Your task to perform on an android device: Open wifi settings Image 0: 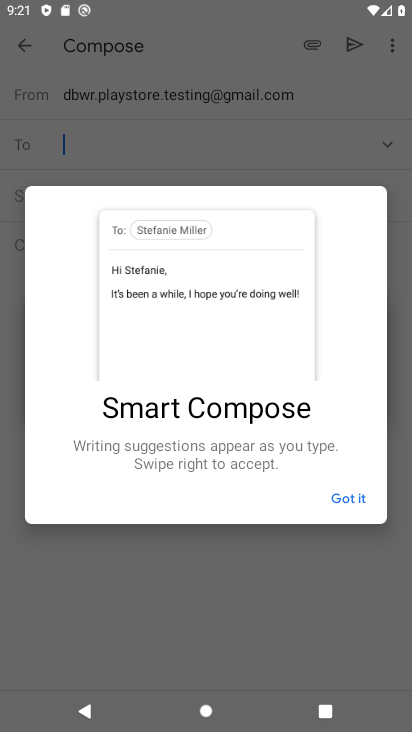
Step 0: drag from (181, 12) to (208, 469)
Your task to perform on an android device: Open wifi settings Image 1: 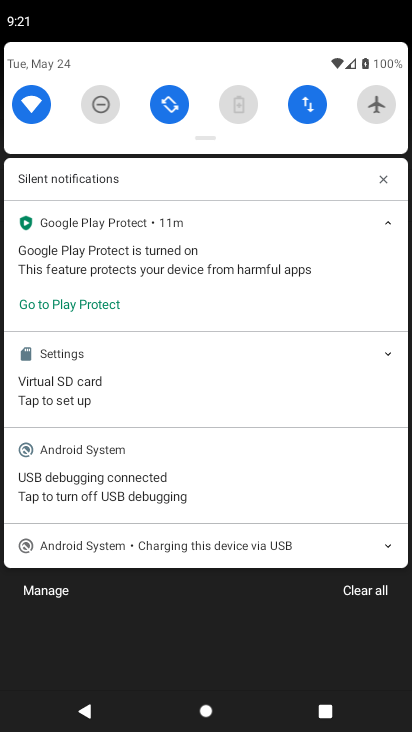
Step 1: click (34, 112)
Your task to perform on an android device: Open wifi settings Image 2: 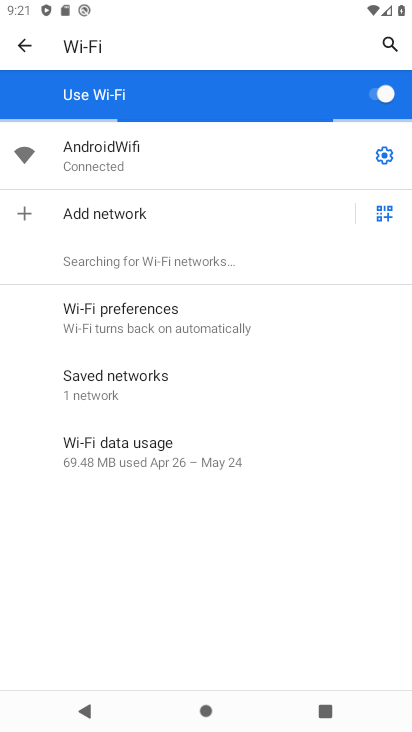
Step 2: task complete